Your task to perform on an android device: change the clock display to analog Image 0: 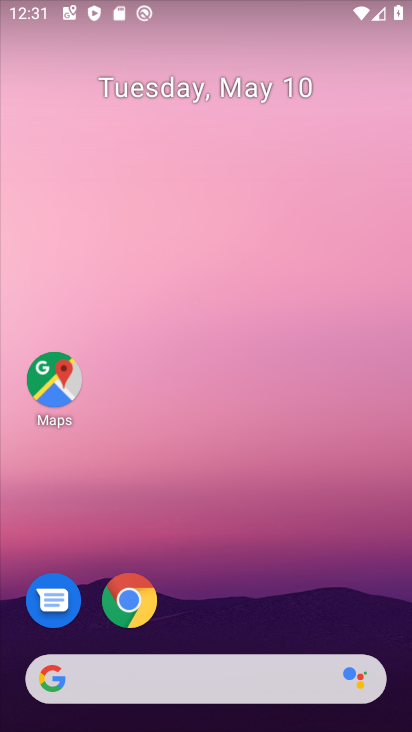
Step 0: drag from (289, 694) to (127, 134)
Your task to perform on an android device: change the clock display to analog Image 1: 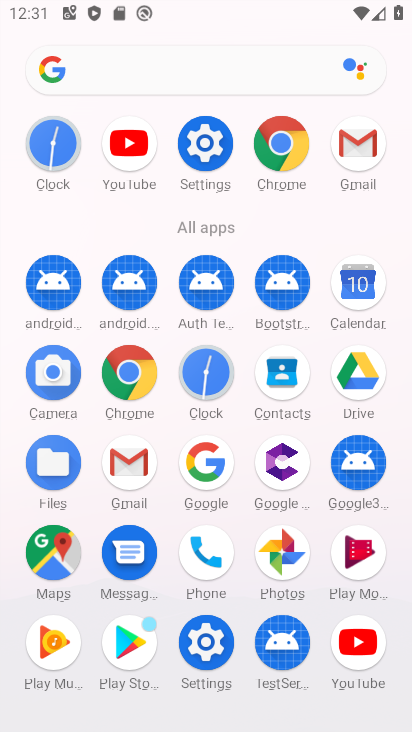
Step 1: click (223, 367)
Your task to perform on an android device: change the clock display to analog Image 2: 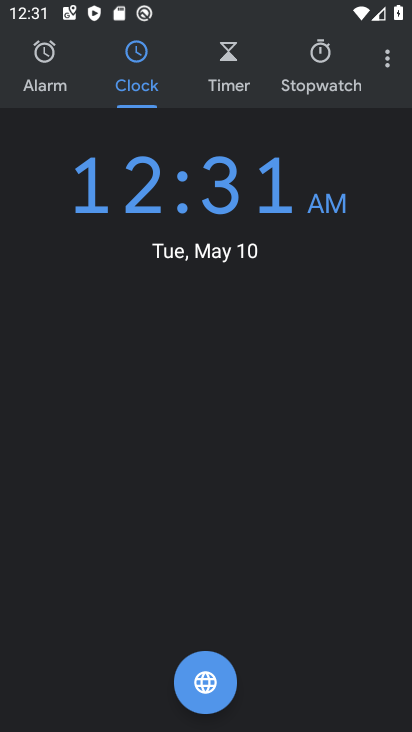
Step 2: click (387, 50)
Your task to perform on an android device: change the clock display to analog Image 3: 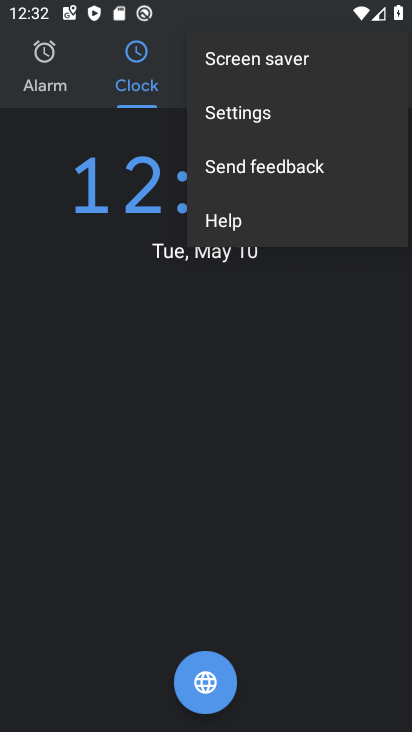
Step 3: click (251, 123)
Your task to perform on an android device: change the clock display to analog Image 4: 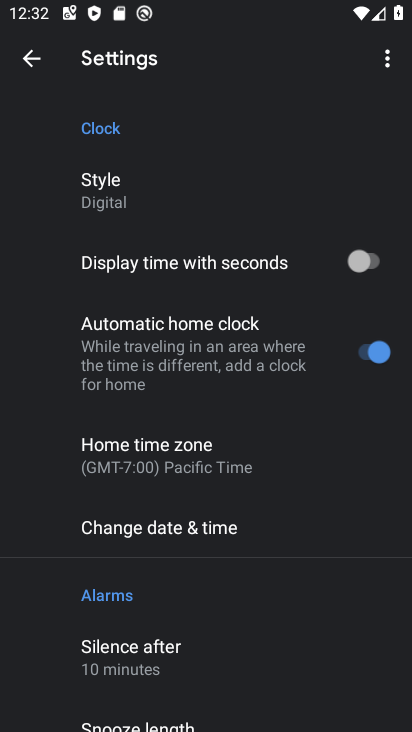
Step 4: drag from (134, 220) to (95, 220)
Your task to perform on an android device: change the clock display to analog Image 5: 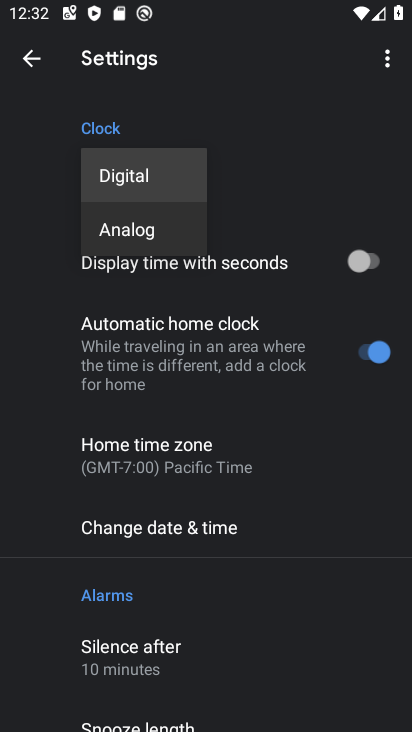
Step 5: click (109, 245)
Your task to perform on an android device: change the clock display to analog Image 6: 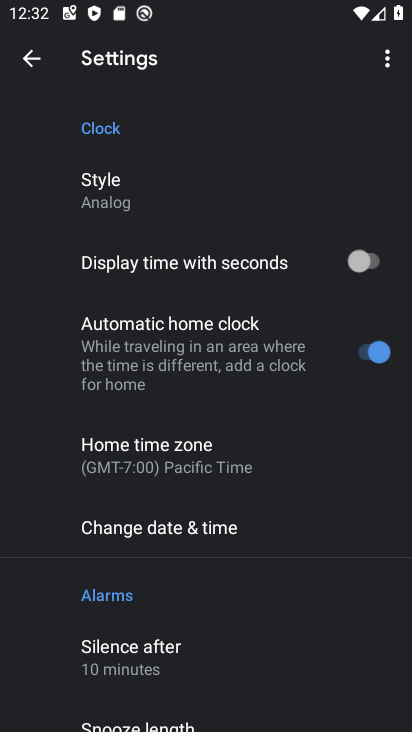
Step 6: task complete